Your task to perform on an android device: toggle priority inbox in the gmail app Image 0: 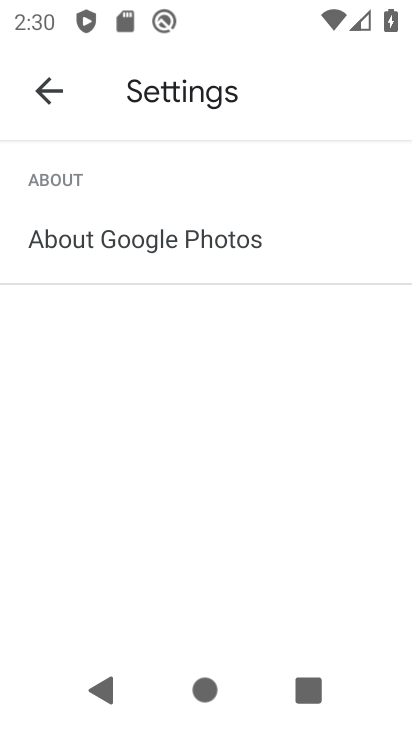
Step 0: press home button
Your task to perform on an android device: toggle priority inbox in the gmail app Image 1: 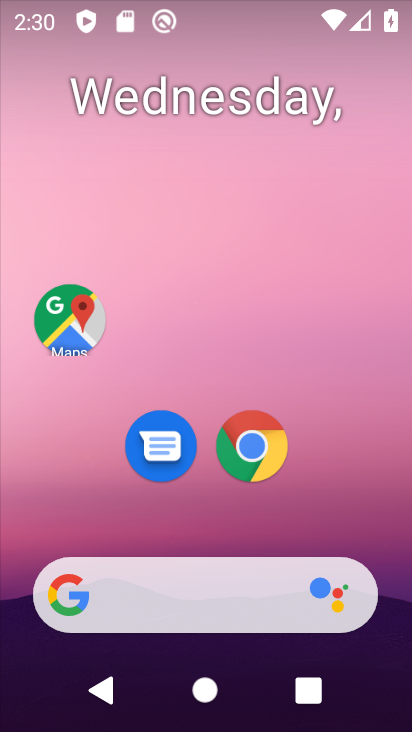
Step 1: drag from (84, 523) to (206, 7)
Your task to perform on an android device: toggle priority inbox in the gmail app Image 2: 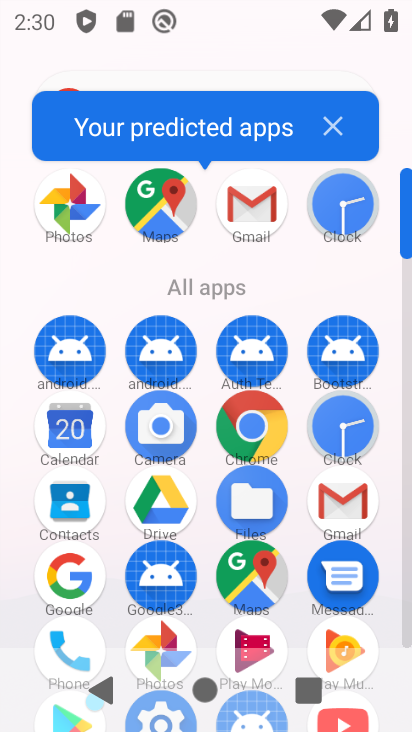
Step 2: click (253, 205)
Your task to perform on an android device: toggle priority inbox in the gmail app Image 3: 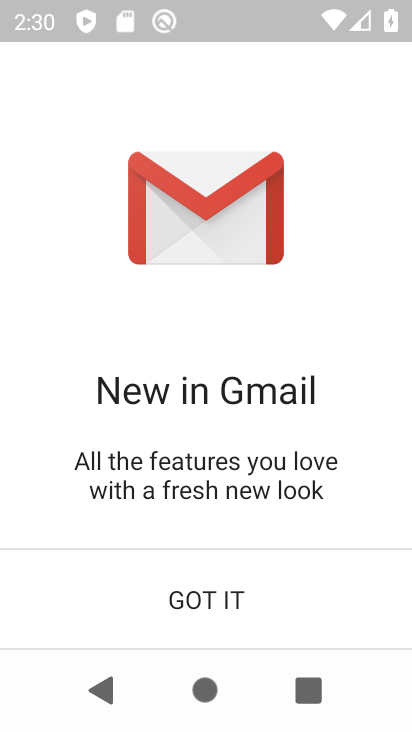
Step 3: click (206, 590)
Your task to perform on an android device: toggle priority inbox in the gmail app Image 4: 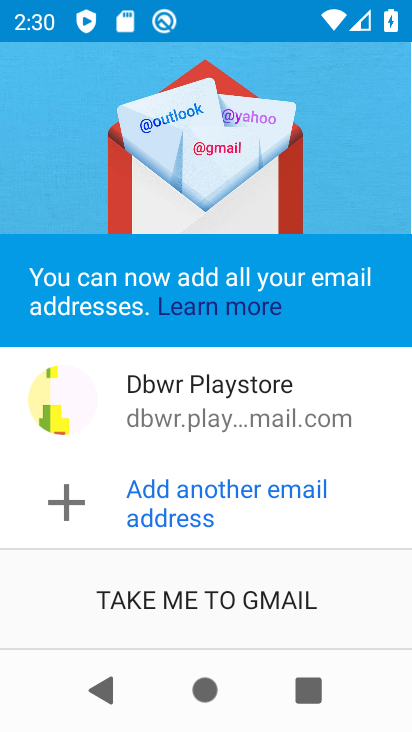
Step 4: click (211, 596)
Your task to perform on an android device: toggle priority inbox in the gmail app Image 5: 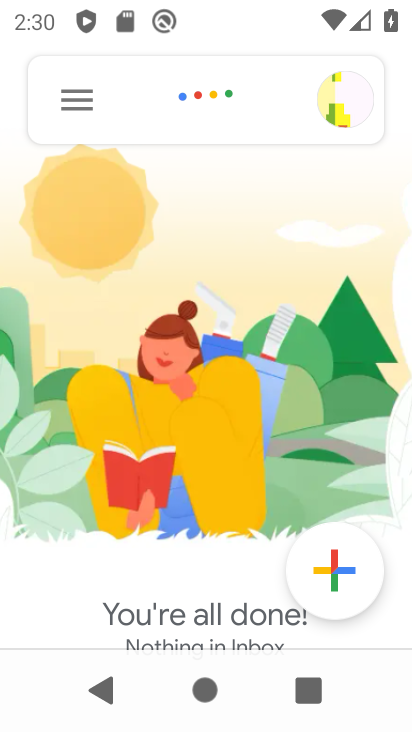
Step 5: click (78, 104)
Your task to perform on an android device: toggle priority inbox in the gmail app Image 6: 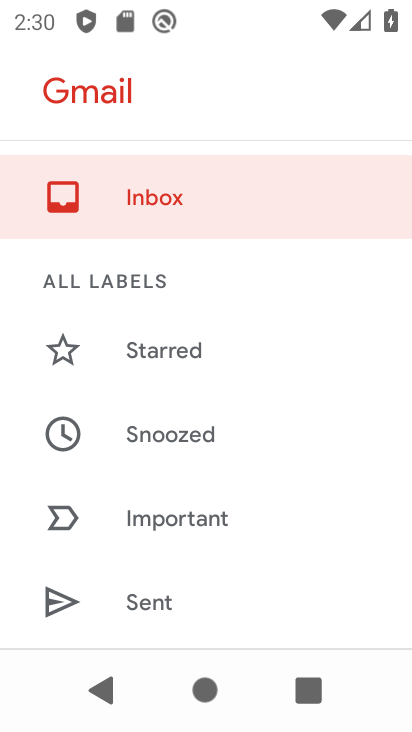
Step 6: drag from (202, 471) to (248, 280)
Your task to perform on an android device: toggle priority inbox in the gmail app Image 7: 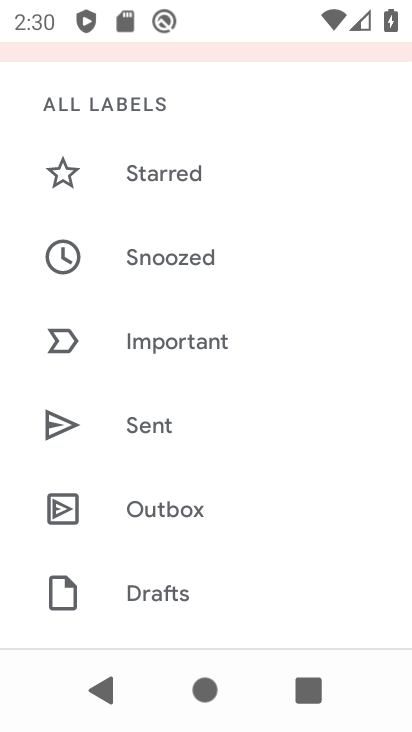
Step 7: drag from (185, 472) to (230, 324)
Your task to perform on an android device: toggle priority inbox in the gmail app Image 8: 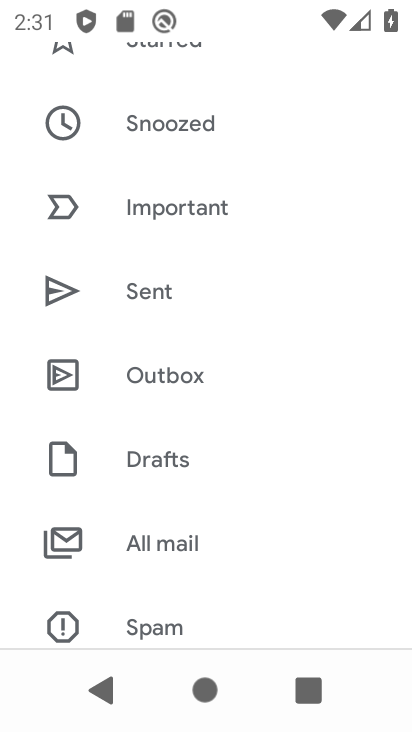
Step 8: drag from (156, 497) to (213, 333)
Your task to perform on an android device: toggle priority inbox in the gmail app Image 9: 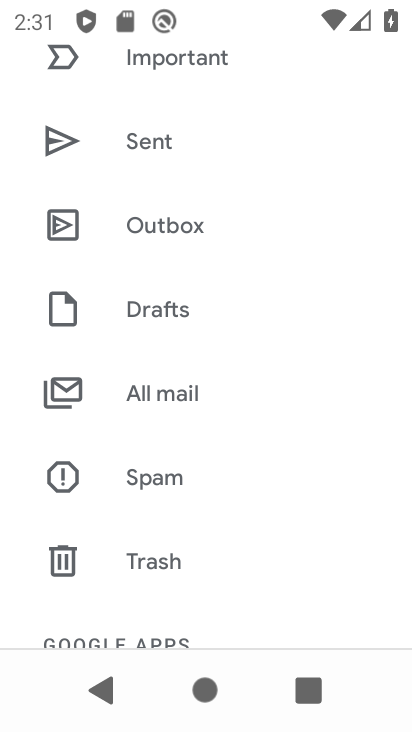
Step 9: drag from (157, 499) to (218, 349)
Your task to perform on an android device: toggle priority inbox in the gmail app Image 10: 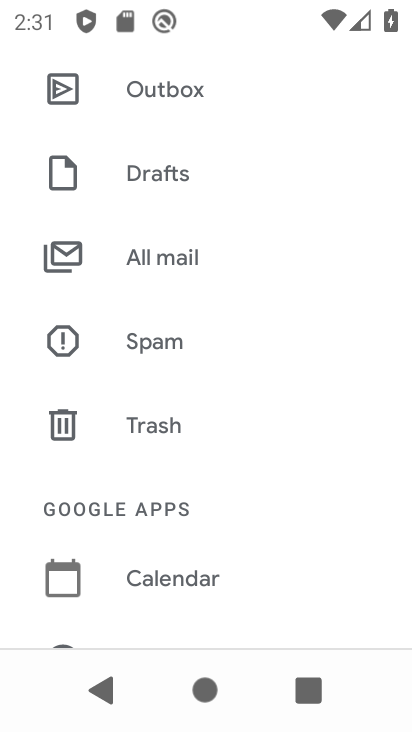
Step 10: drag from (147, 531) to (218, 352)
Your task to perform on an android device: toggle priority inbox in the gmail app Image 11: 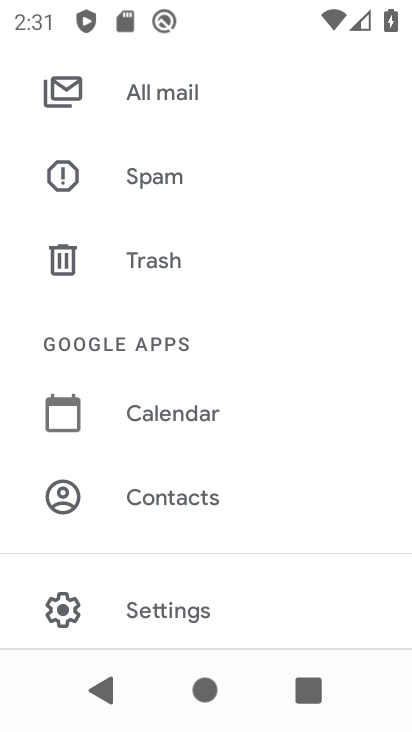
Step 11: drag from (195, 519) to (254, 372)
Your task to perform on an android device: toggle priority inbox in the gmail app Image 12: 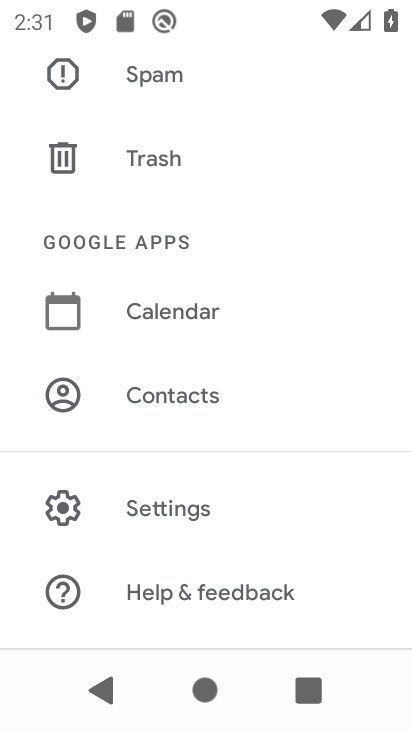
Step 12: click (190, 513)
Your task to perform on an android device: toggle priority inbox in the gmail app Image 13: 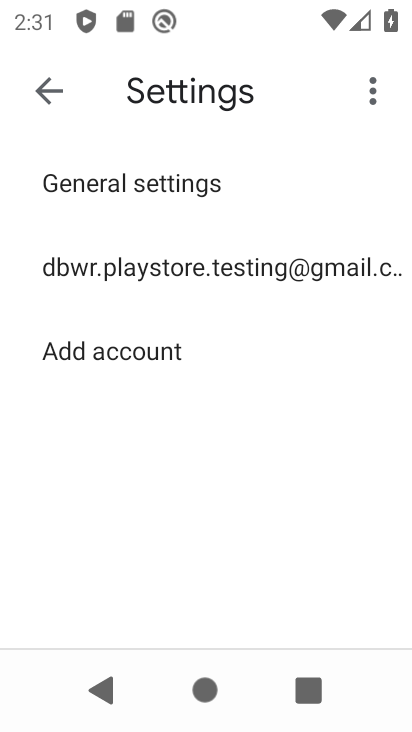
Step 13: click (263, 268)
Your task to perform on an android device: toggle priority inbox in the gmail app Image 14: 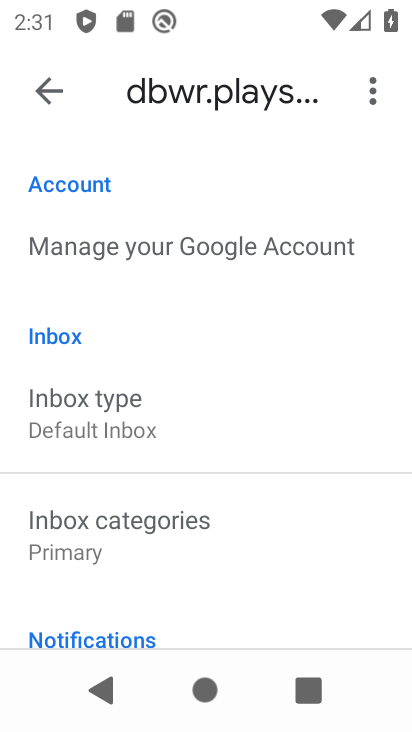
Step 14: click (132, 403)
Your task to perform on an android device: toggle priority inbox in the gmail app Image 15: 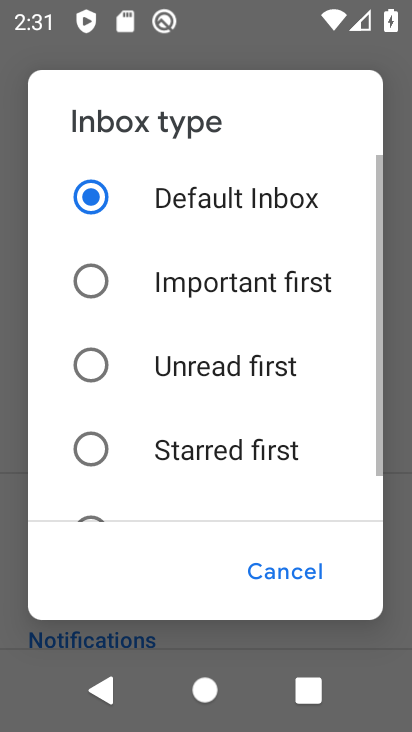
Step 15: drag from (140, 446) to (223, 219)
Your task to perform on an android device: toggle priority inbox in the gmail app Image 16: 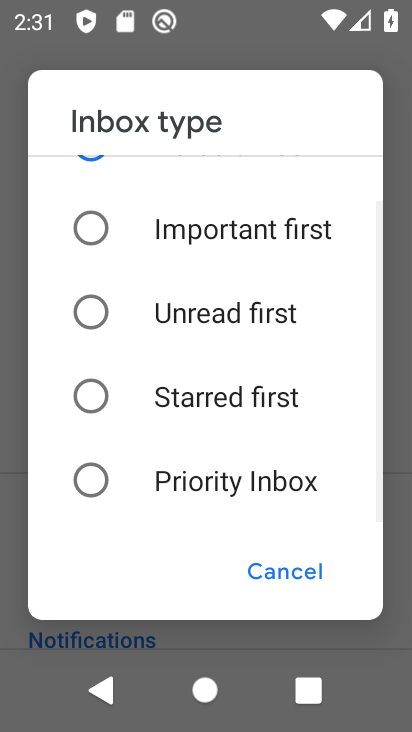
Step 16: click (90, 486)
Your task to perform on an android device: toggle priority inbox in the gmail app Image 17: 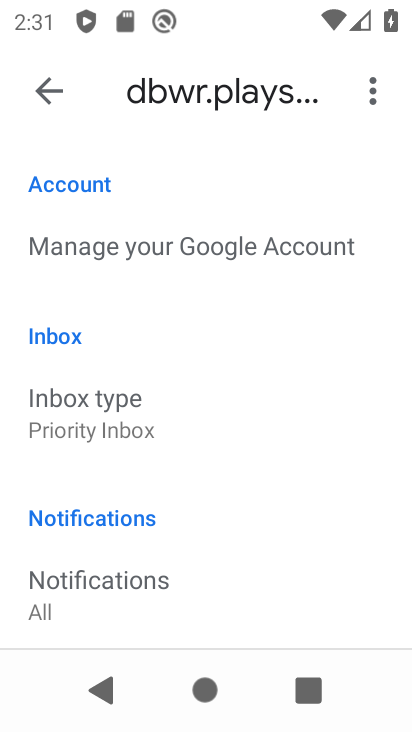
Step 17: task complete